Your task to perform on an android device: Open Yahoo.com Image 0: 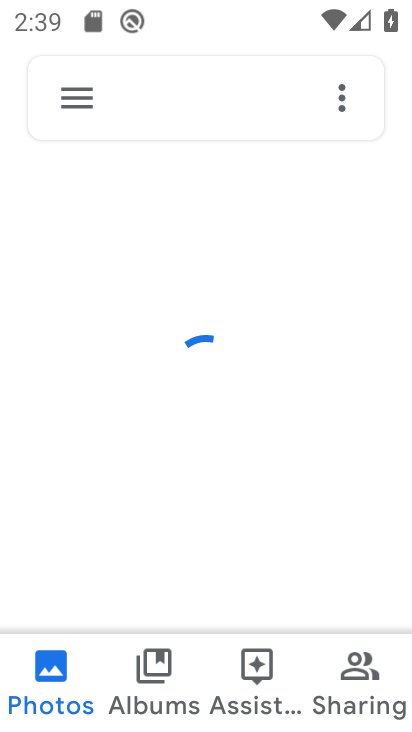
Step 0: press home button
Your task to perform on an android device: Open Yahoo.com Image 1: 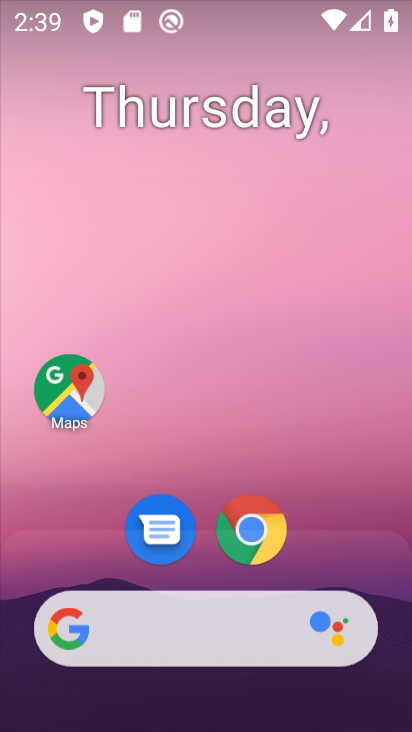
Step 1: click (248, 528)
Your task to perform on an android device: Open Yahoo.com Image 2: 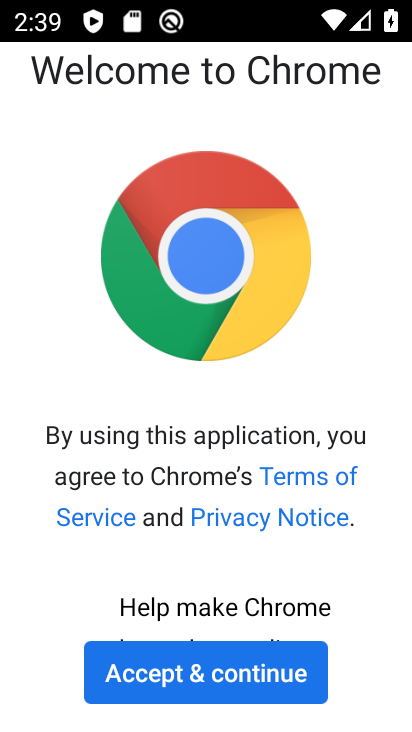
Step 2: click (234, 667)
Your task to perform on an android device: Open Yahoo.com Image 3: 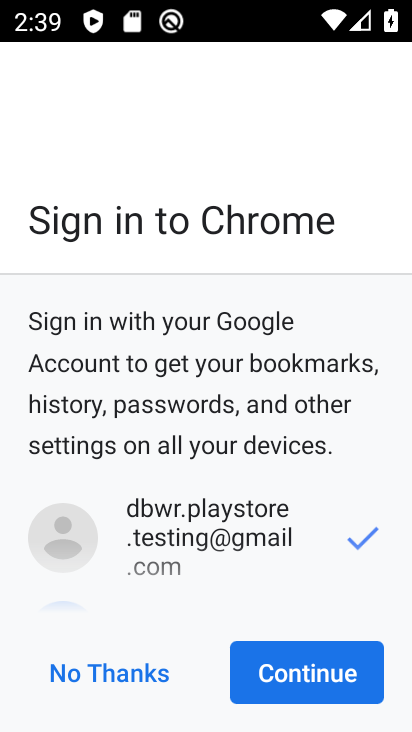
Step 3: click (292, 685)
Your task to perform on an android device: Open Yahoo.com Image 4: 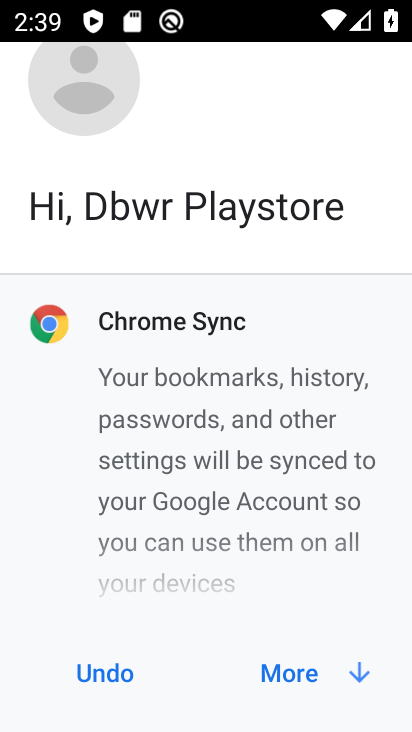
Step 4: click (280, 665)
Your task to perform on an android device: Open Yahoo.com Image 5: 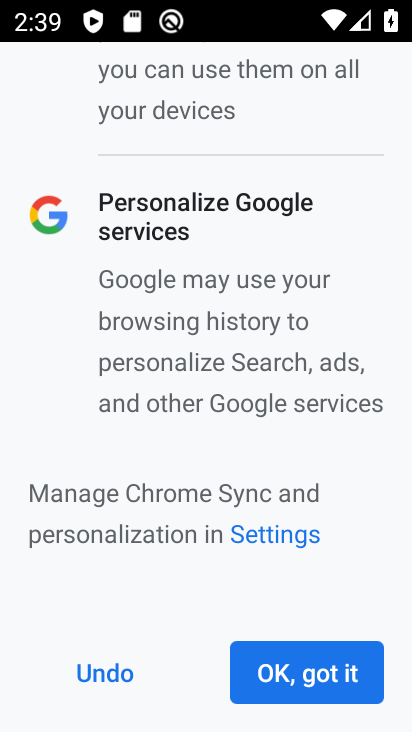
Step 5: click (280, 665)
Your task to perform on an android device: Open Yahoo.com Image 6: 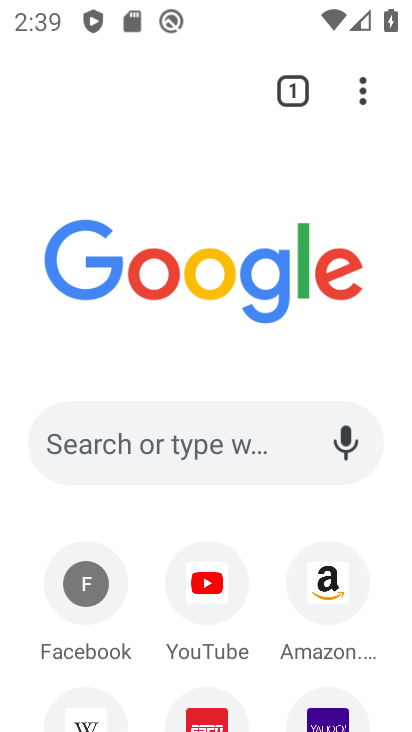
Step 6: click (201, 442)
Your task to perform on an android device: Open Yahoo.com Image 7: 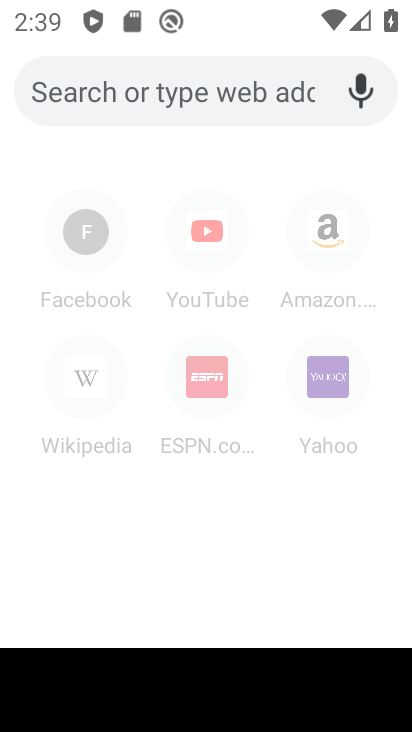
Step 7: type "Yahoo.com"
Your task to perform on an android device: Open Yahoo.com Image 8: 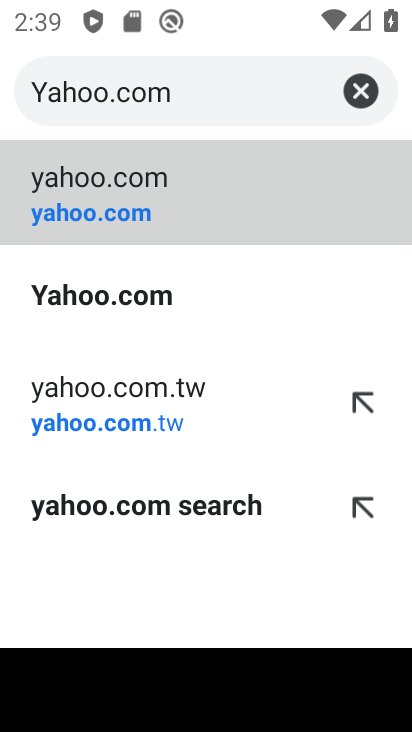
Step 8: click (278, 186)
Your task to perform on an android device: Open Yahoo.com Image 9: 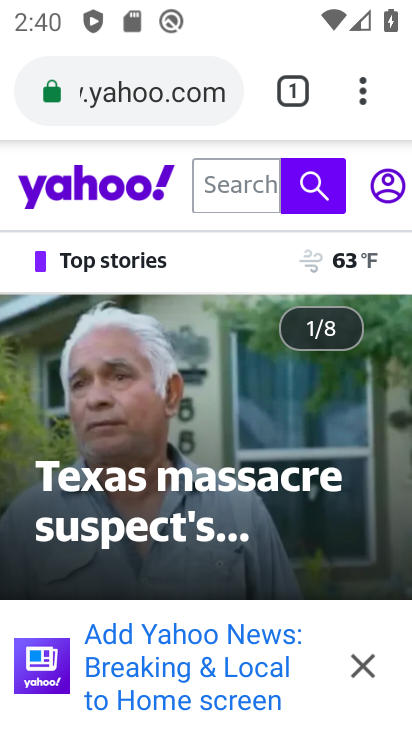
Step 9: task complete